Your task to perform on an android device: open chrome privacy settings Image 0: 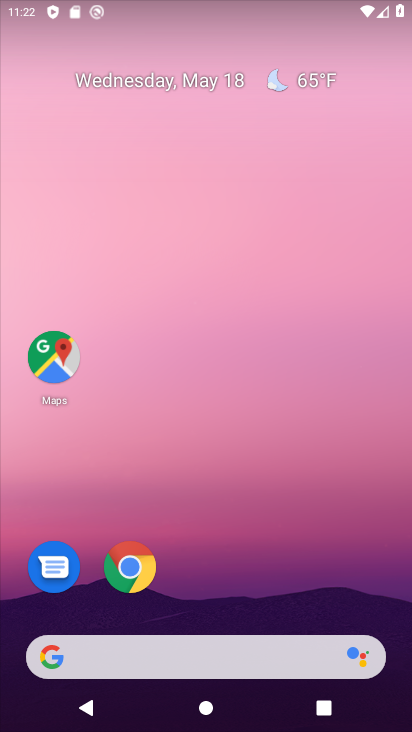
Step 0: click (129, 568)
Your task to perform on an android device: open chrome privacy settings Image 1: 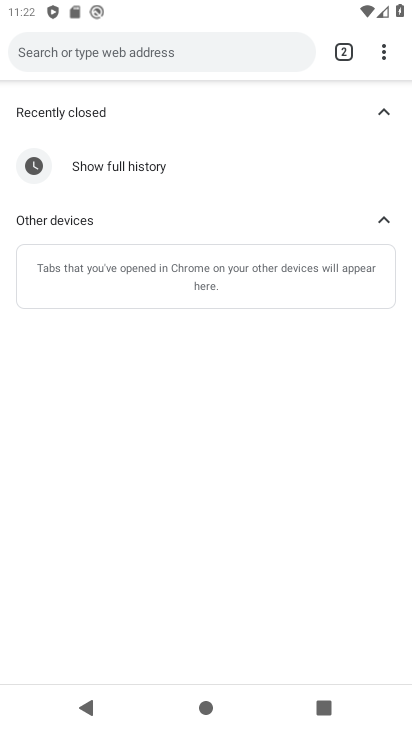
Step 1: click (385, 50)
Your task to perform on an android device: open chrome privacy settings Image 2: 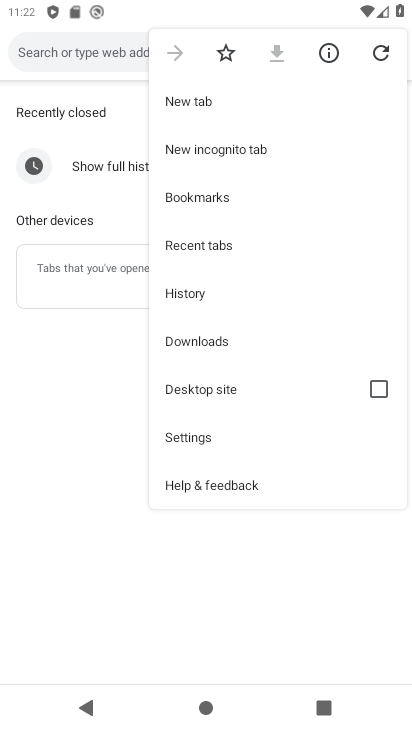
Step 2: click (193, 438)
Your task to perform on an android device: open chrome privacy settings Image 3: 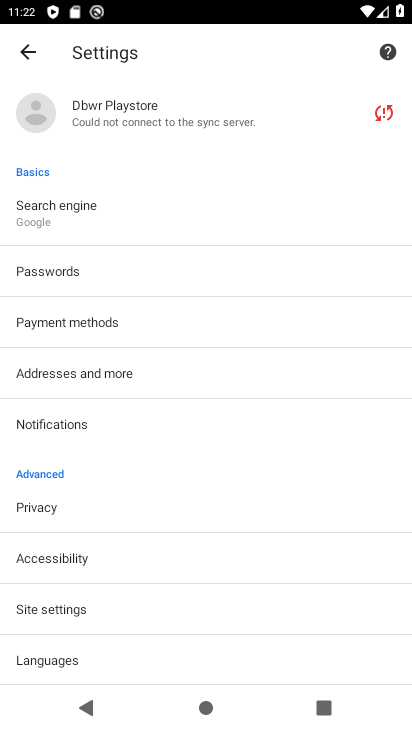
Step 3: click (59, 514)
Your task to perform on an android device: open chrome privacy settings Image 4: 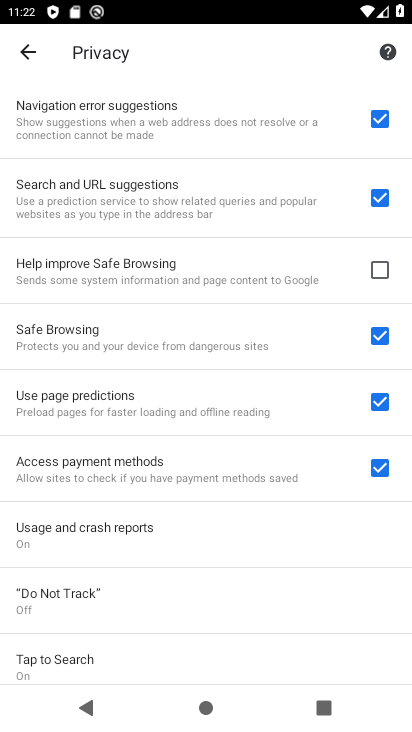
Step 4: task complete